Your task to perform on an android device: Open settings on Google Maps Image 0: 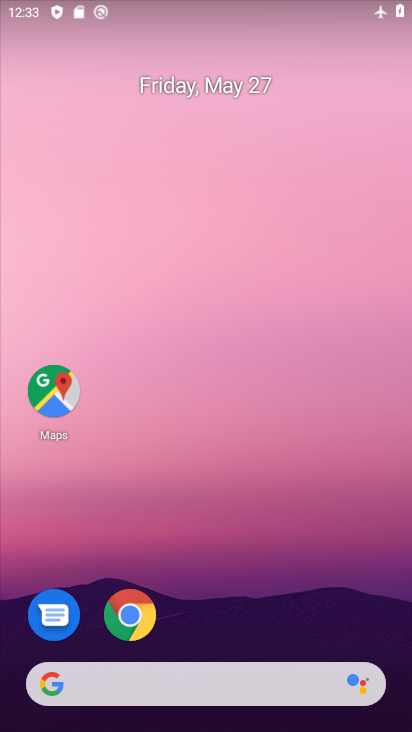
Step 0: press home button
Your task to perform on an android device: Open settings on Google Maps Image 1: 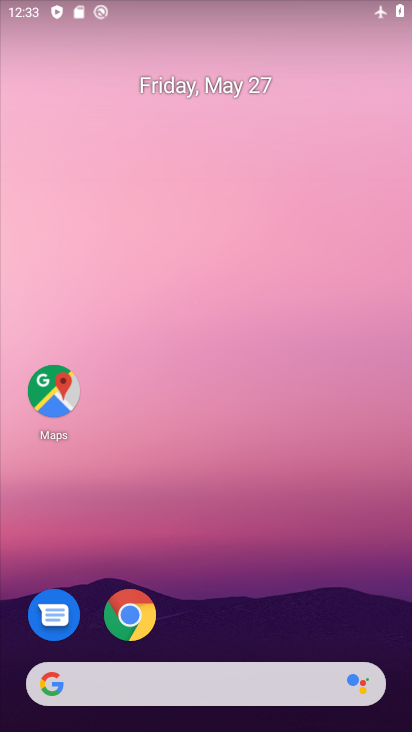
Step 1: click (51, 389)
Your task to perform on an android device: Open settings on Google Maps Image 2: 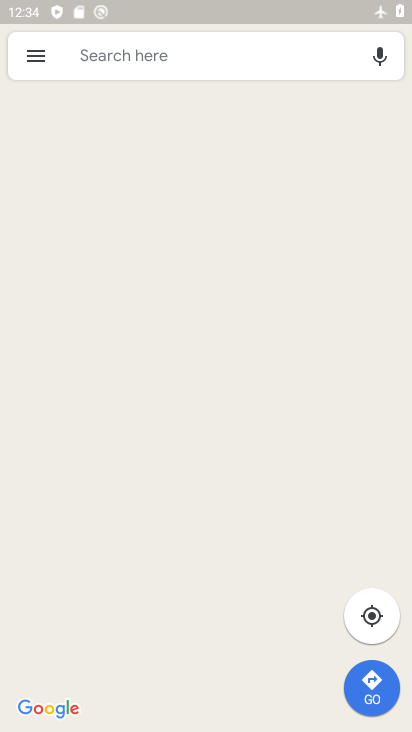
Step 2: click (35, 59)
Your task to perform on an android device: Open settings on Google Maps Image 3: 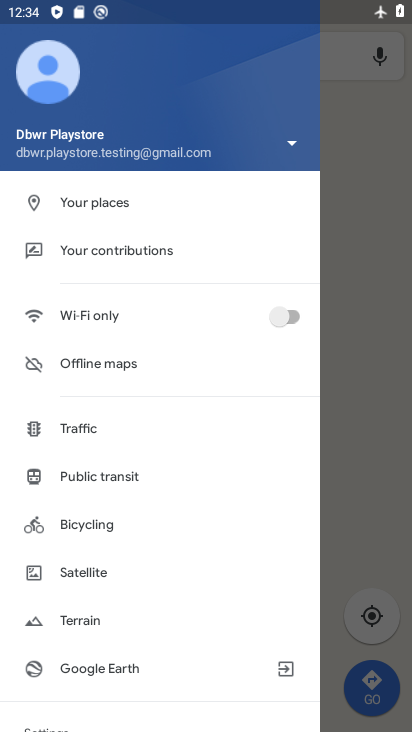
Step 3: drag from (215, 614) to (207, 88)
Your task to perform on an android device: Open settings on Google Maps Image 4: 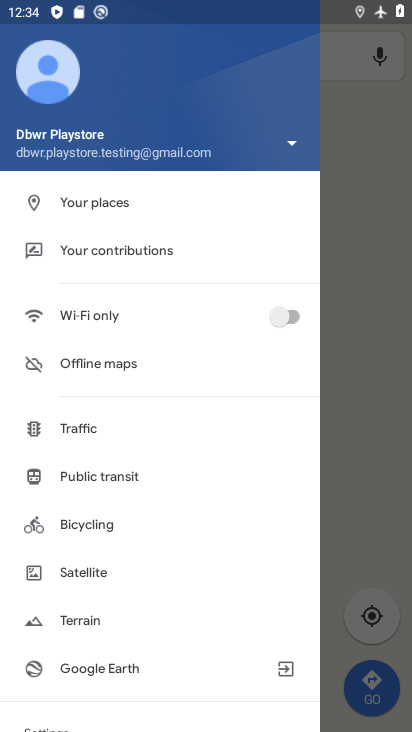
Step 4: drag from (221, 588) to (212, 97)
Your task to perform on an android device: Open settings on Google Maps Image 5: 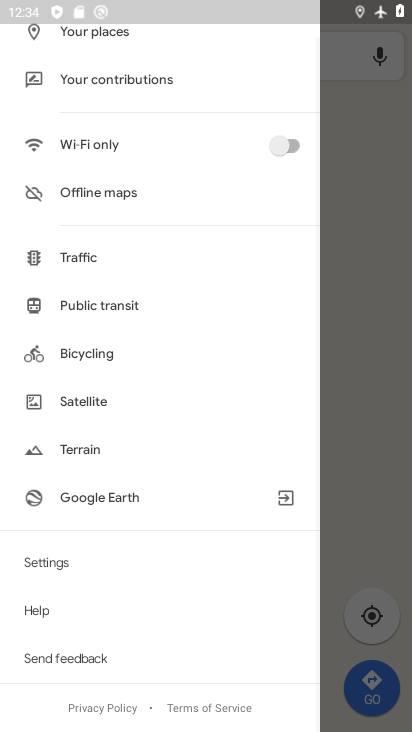
Step 5: click (42, 560)
Your task to perform on an android device: Open settings on Google Maps Image 6: 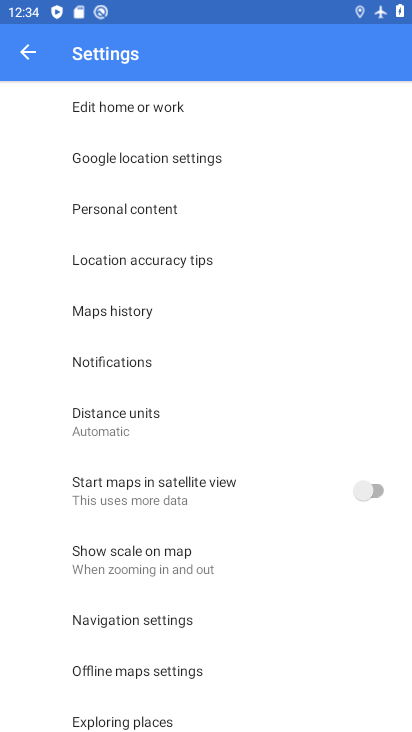
Step 6: task complete